Your task to perform on an android device: read, delete, or share a saved page in the chrome app Image 0: 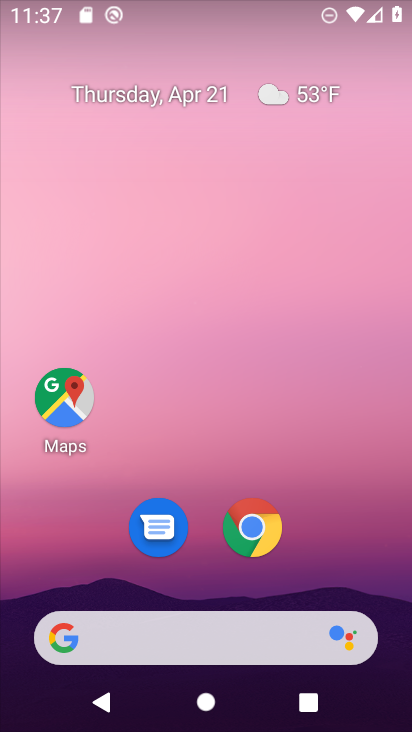
Step 0: drag from (369, 549) to (356, 137)
Your task to perform on an android device: read, delete, or share a saved page in the chrome app Image 1: 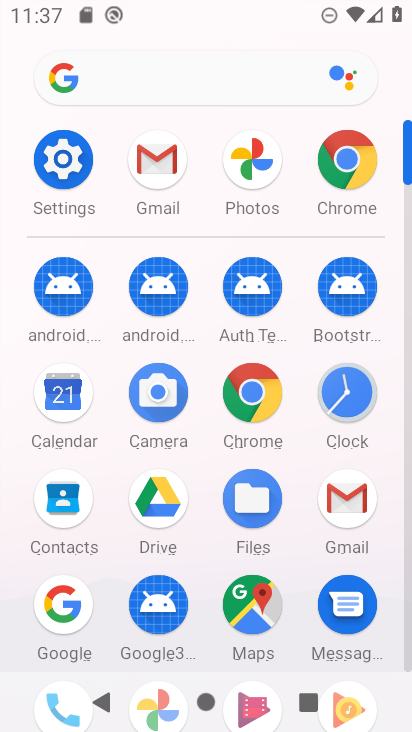
Step 1: click (267, 394)
Your task to perform on an android device: read, delete, or share a saved page in the chrome app Image 2: 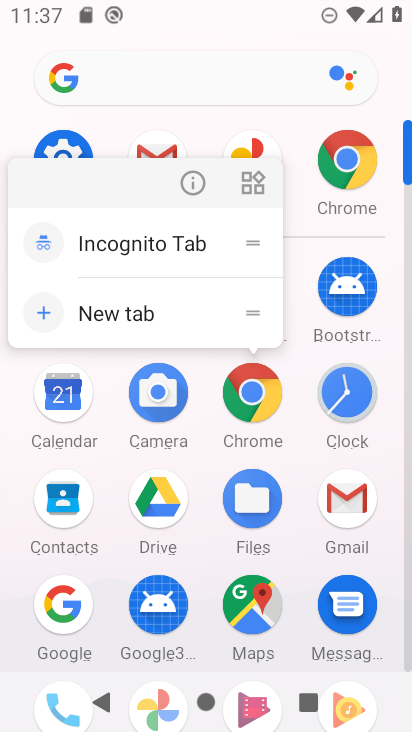
Step 2: click (254, 385)
Your task to perform on an android device: read, delete, or share a saved page in the chrome app Image 3: 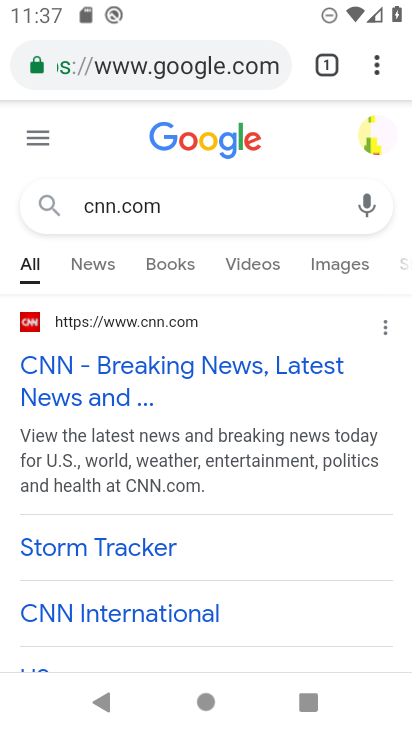
Step 3: click (375, 74)
Your task to perform on an android device: read, delete, or share a saved page in the chrome app Image 4: 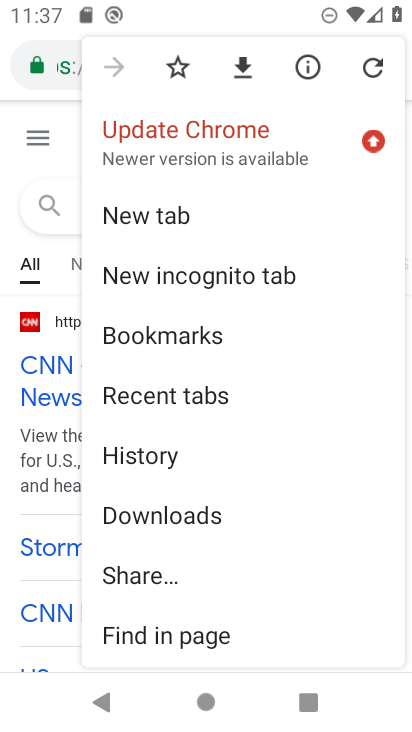
Step 4: drag from (326, 495) to (315, 370)
Your task to perform on an android device: read, delete, or share a saved page in the chrome app Image 5: 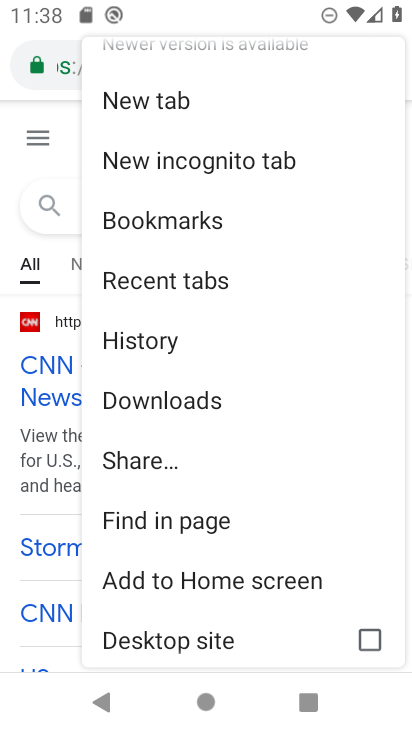
Step 5: drag from (315, 497) to (306, 353)
Your task to perform on an android device: read, delete, or share a saved page in the chrome app Image 6: 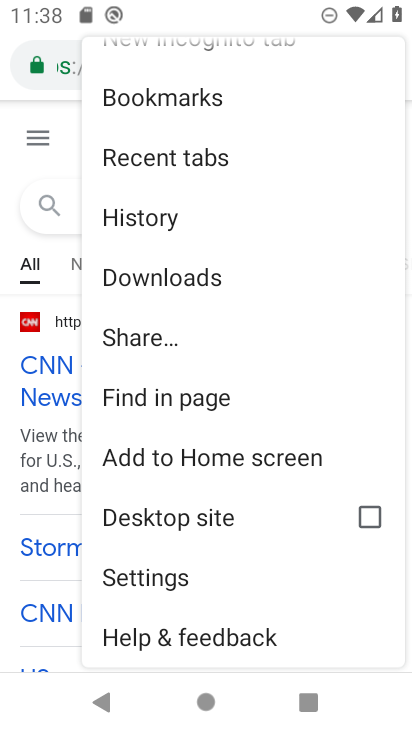
Step 6: drag from (305, 551) to (310, 338)
Your task to perform on an android device: read, delete, or share a saved page in the chrome app Image 7: 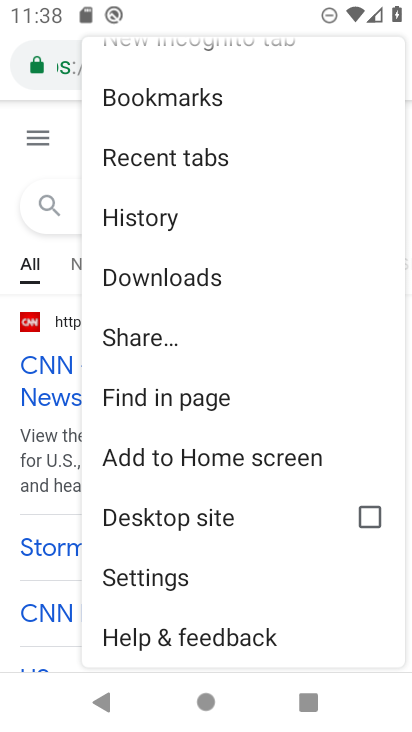
Step 7: click (210, 279)
Your task to perform on an android device: read, delete, or share a saved page in the chrome app Image 8: 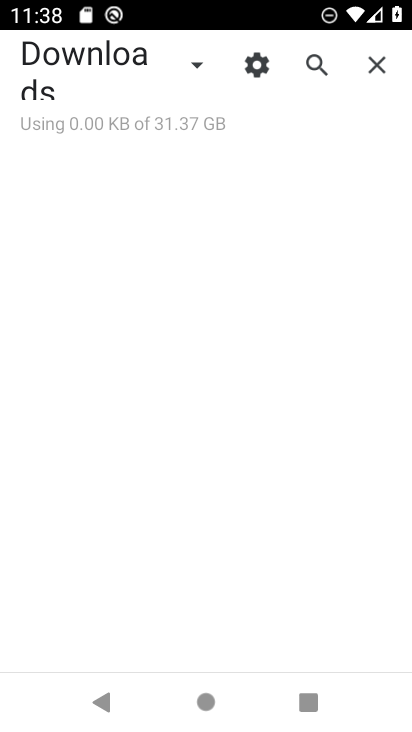
Step 8: click (184, 64)
Your task to perform on an android device: read, delete, or share a saved page in the chrome app Image 9: 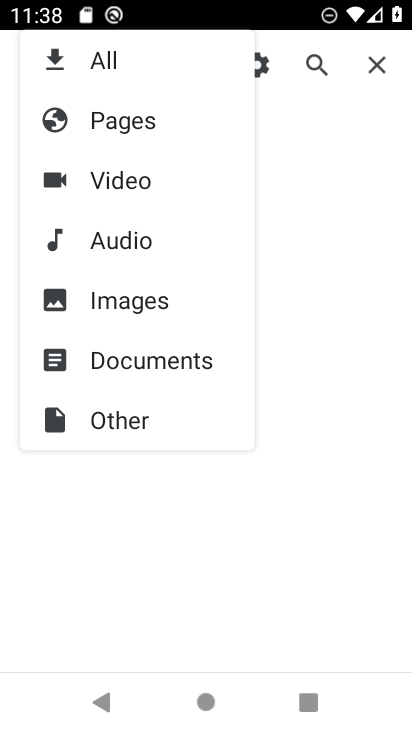
Step 9: click (166, 133)
Your task to perform on an android device: read, delete, or share a saved page in the chrome app Image 10: 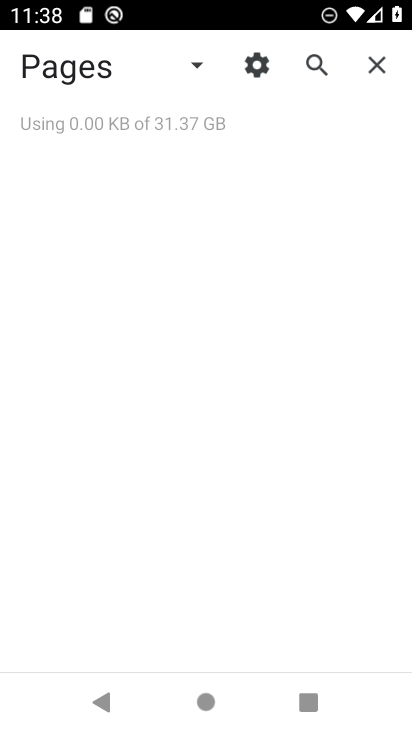
Step 10: task complete